Your task to perform on an android device: toggle translation in the chrome app Image 0: 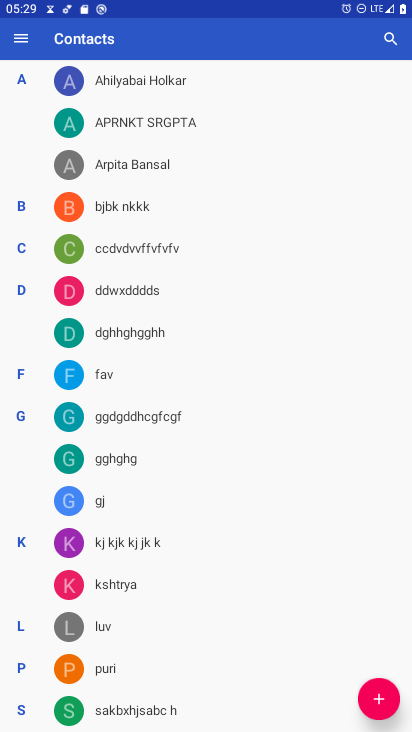
Step 0: press home button
Your task to perform on an android device: toggle translation in the chrome app Image 1: 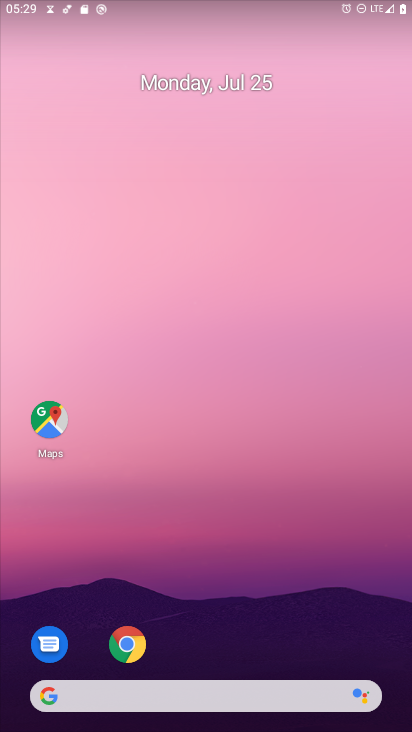
Step 1: click (134, 627)
Your task to perform on an android device: toggle translation in the chrome app Image 2: 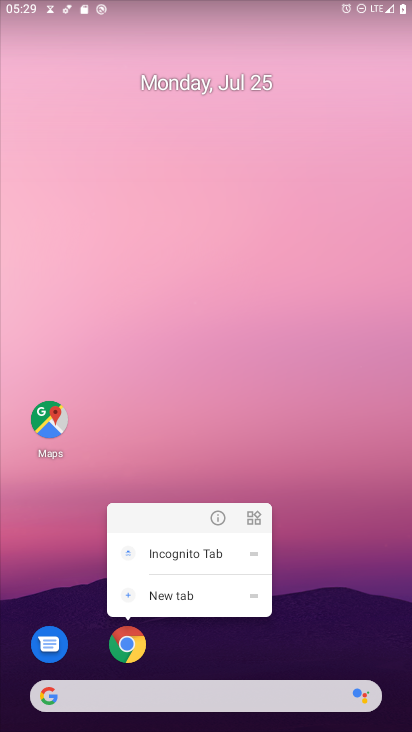
Step 2: click (131, 634)
Your task to perform on an android device: toggle translation in the chrome app Image 3: 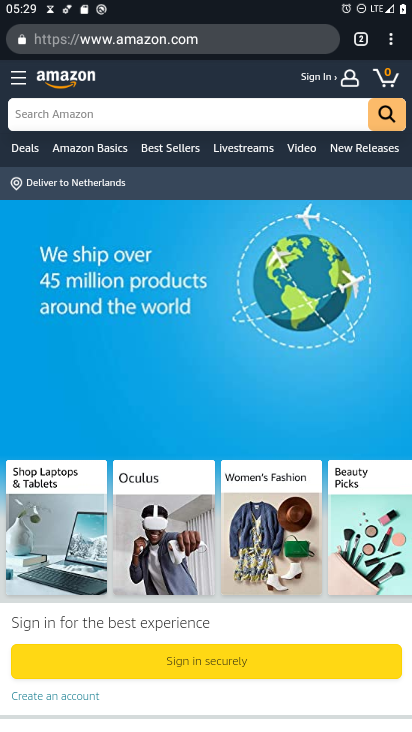
Step 3: drag from (398, 39) to (281, 477)
Your task to perform on an android device: toggle translation in the chrome app Image 4: 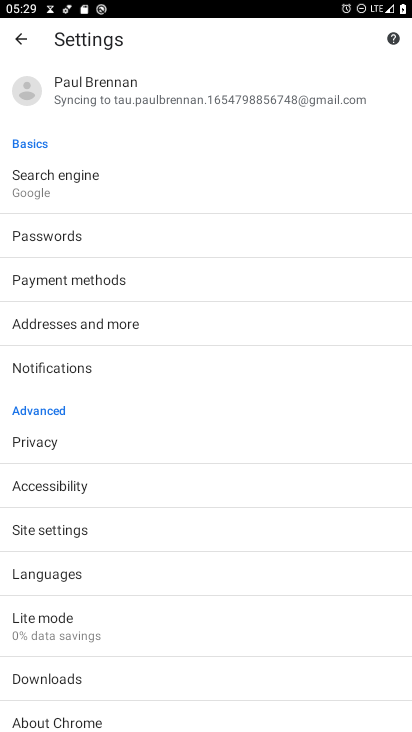
Step 4: click (65, 574)
Your task to perform on an android device: toggle translation in the chrome app Image 5: 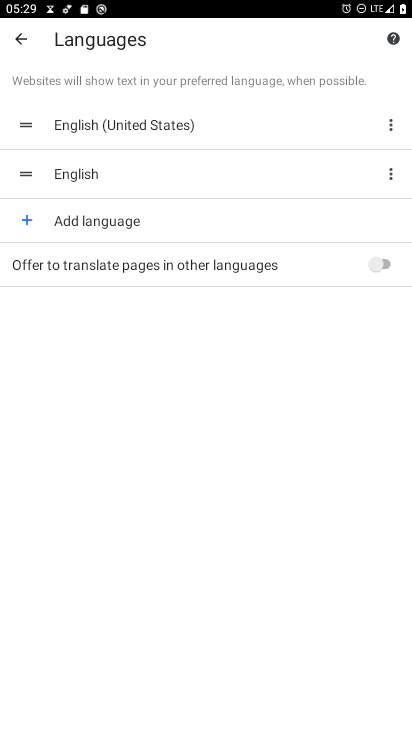
Step 5: click (387, 269)
Your task to perform on an android device: toggle translation in the chrome app Image 6: 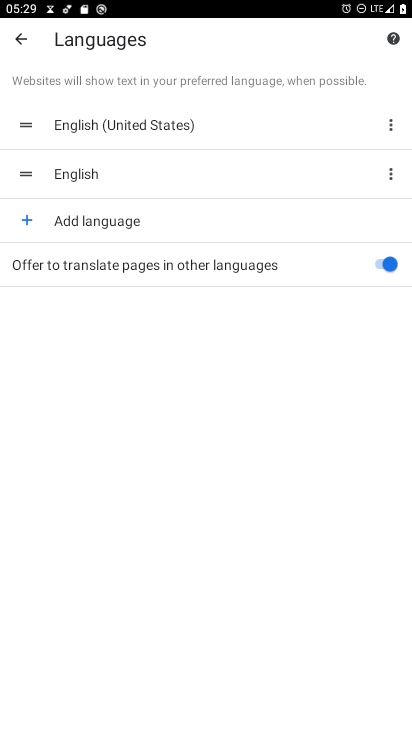
Step 6: task complete